Your task to perform on an android device: Do I have any events this weekend? Image 0: 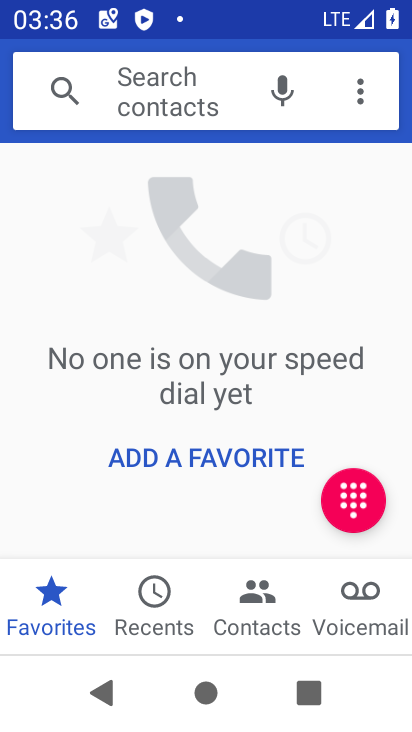
Step 0: press home button
Your task to perform on an android device: Do I have any events this weekend? Image 1: 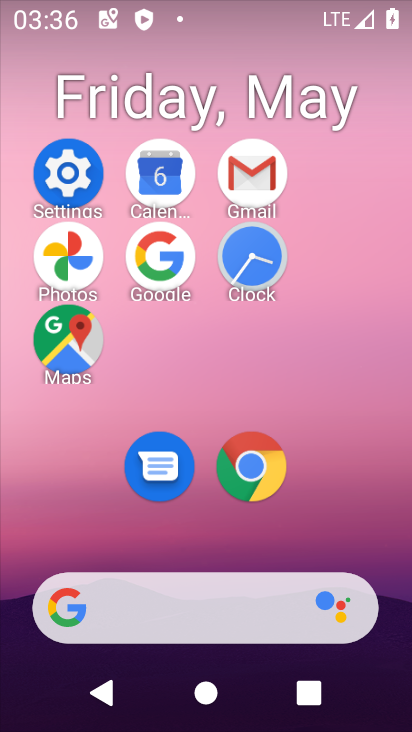
Step 1: click (168, 183)
Your task to perform on an android device: Do I have any events this weekend? Image 2: 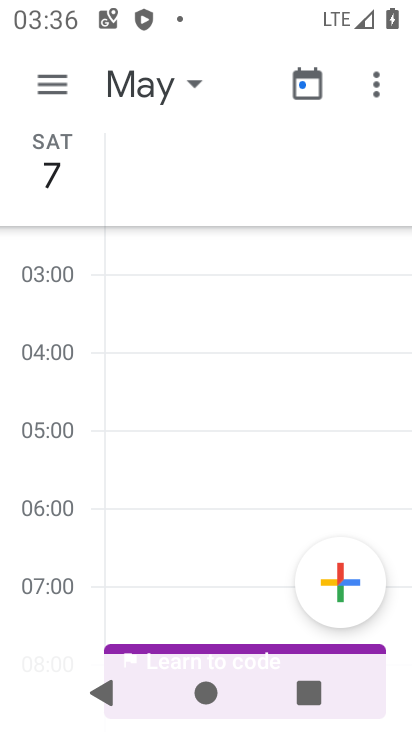
Step 2: click (60, 77)
Your task to perform on an android device: Do I have any events this weekend? Image 3: 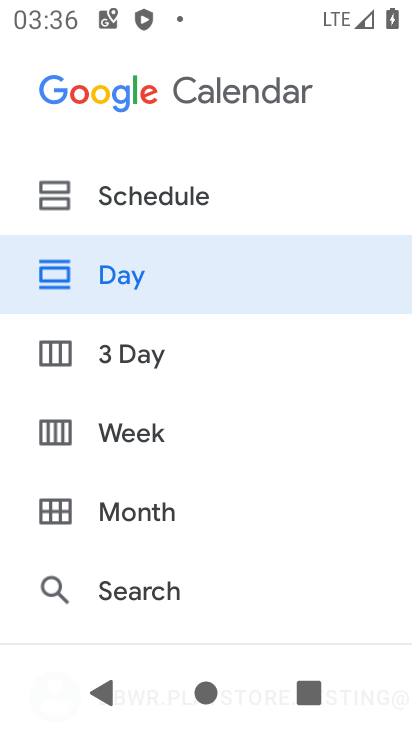
Step 3: click (123, 428)
Your task to perform on an android device: Do I have any events this weekend? Image 4: 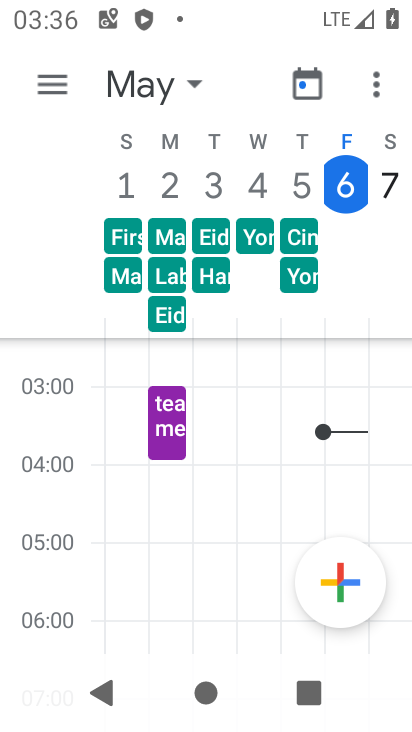
Step 4: click (391, 181)
Your task to perform on an android device: Do I have any events this weekend? Image 5: 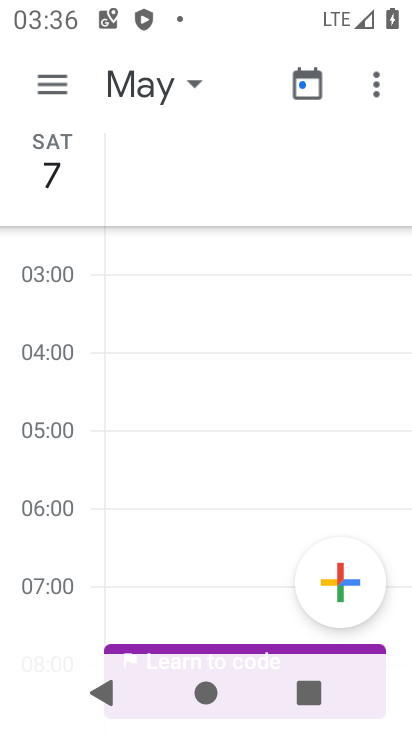
Step 5: task complete